Your task to perform on an android device: turn off translation in the chrome app Image 0: 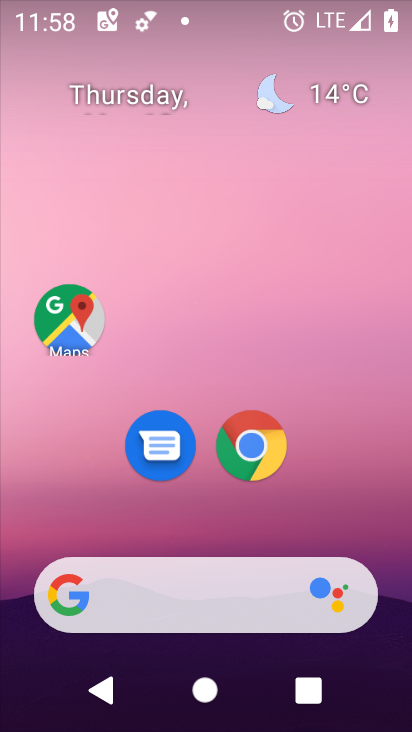
Step 0: drag from (230, 513) to (202, 89)
Your task to perform on an android device: turn off translation in the chrome app Image 1: 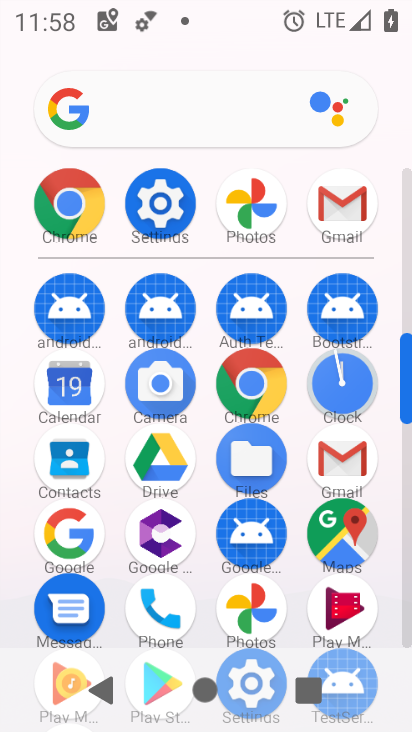
Step 1: click (241, 390)
Your task to perform on an android device: turn off translation in the chrome app Image 2: 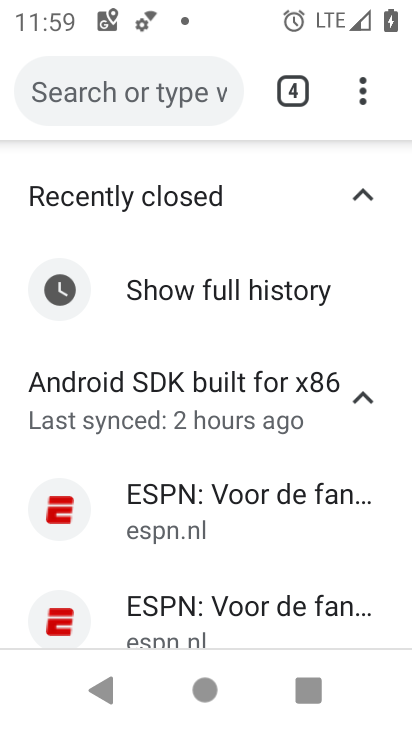
Step 2: click (371, 98)
Your task to perform on an android device: turn off translation in the chrome app Image 3: 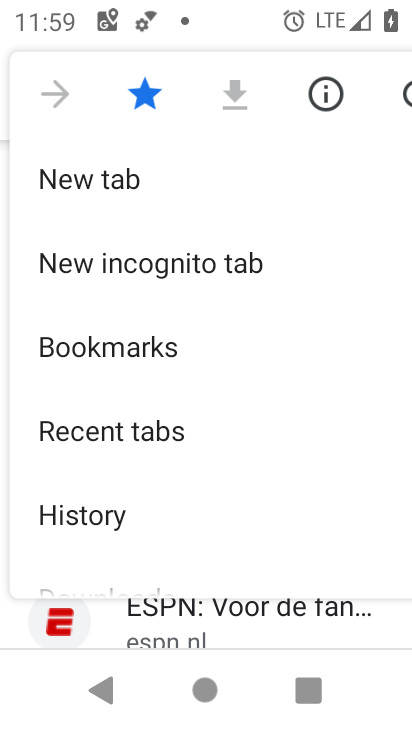
Step 3: drag from (176, 453) to (156, 196)
Your task to perform on an android device: turn off translation in the chrome app Image 4: 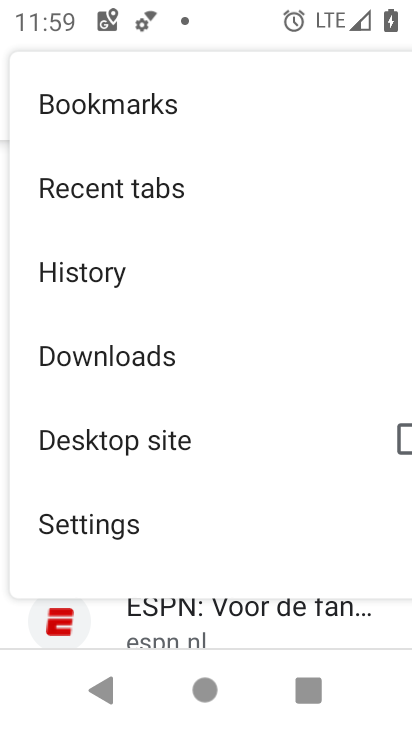
Step 4: drag from (158, 525) to (108, 284)
Your task to perform on an android device: turn off translation in the chrome app Image 5: 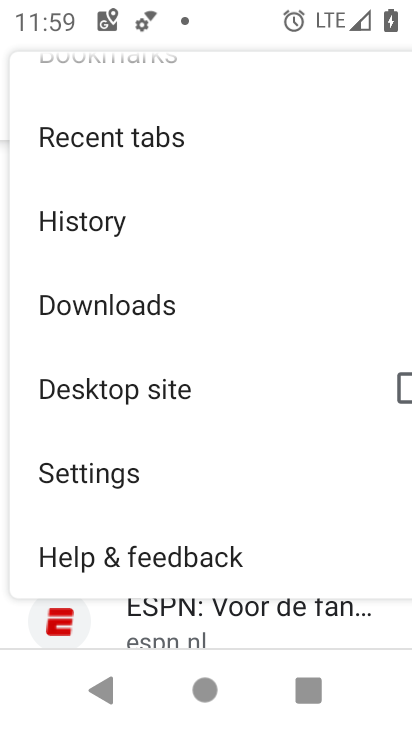
Step 5: click (145, 471)
Your task to perform on an android device: turn off translation in the chrome app Image 6: 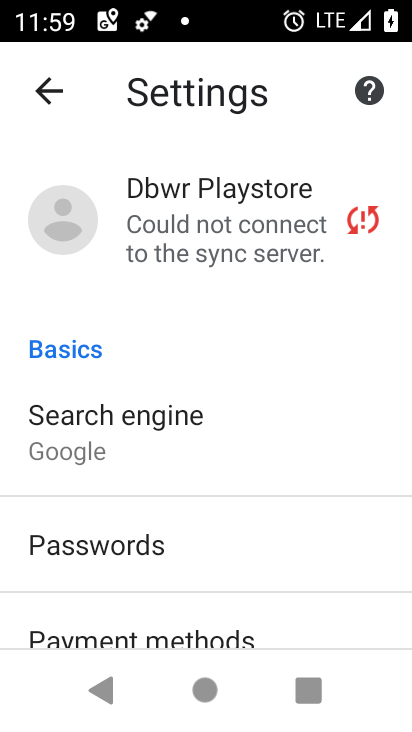
Step 6: drag from (206, 553) to (195, 213)
Your task to perform on an android device: turn off translation in the chrome app Image 7: 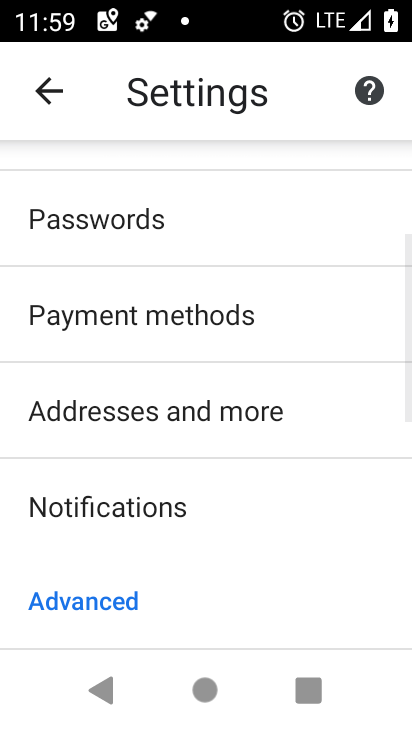
Step 7: drag from (193, 556) to (136, 186)
Your task to perform on an android device: turn off translation in the chrome app Image 8: 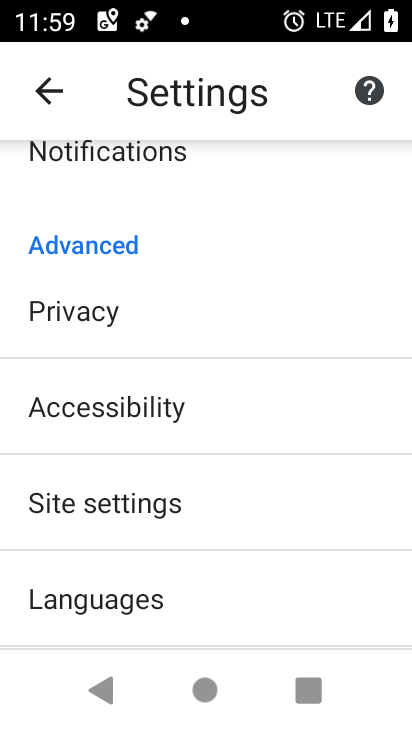
Step 8: click (164, 599)
Your task to perform on an android device: turn off translation in the chrome app Image 9: 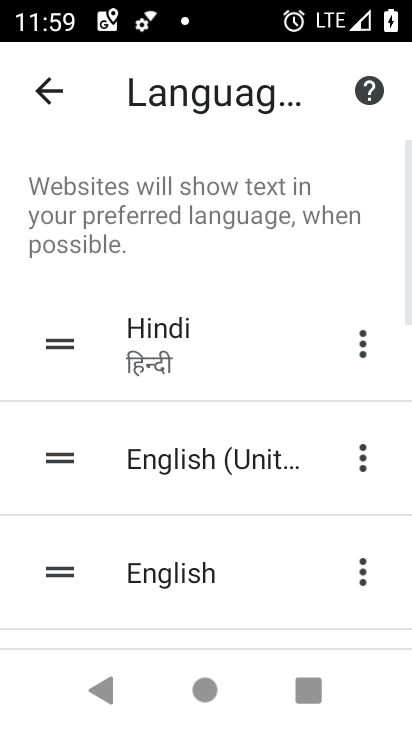
Step 9: task complete